Your task to perform on an android device: change the clock style Image 0: 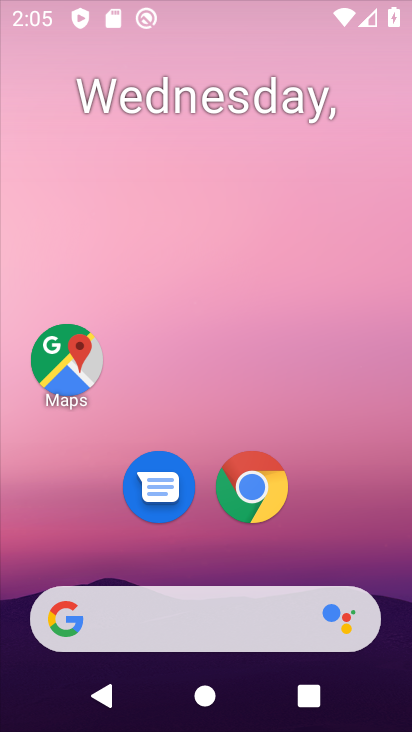
Step 0: drag from (300, 616) to (163, 210)
Your task to perform on an android device: change the clock style Image 1: 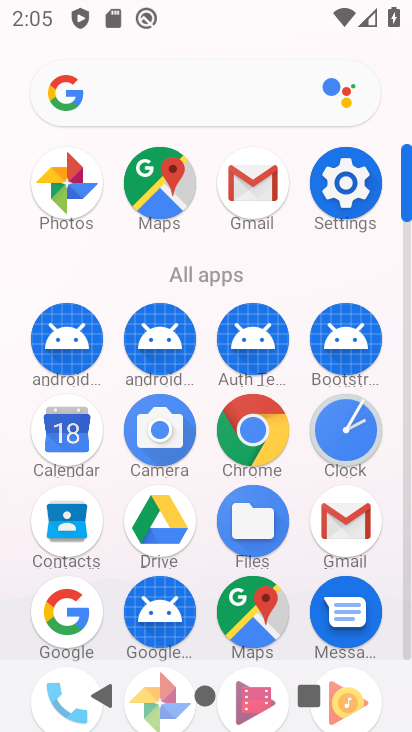
Step 1: click (344, 439)
Your task to perform on an android device: change the clock style Image 2: 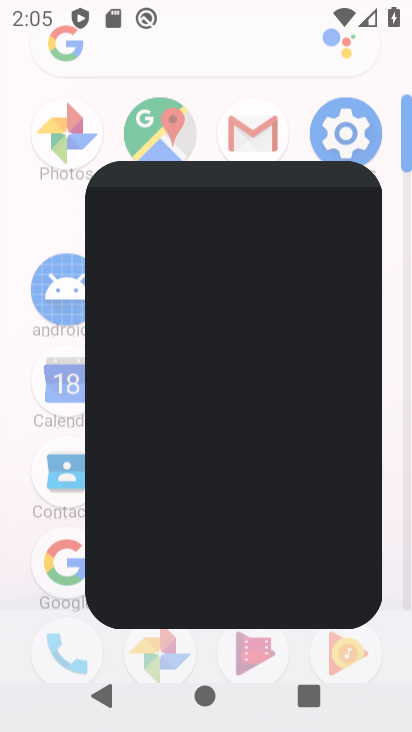
Step 2: click (345, 438)
Your task to perform on an android device: change the clock style Image 3: 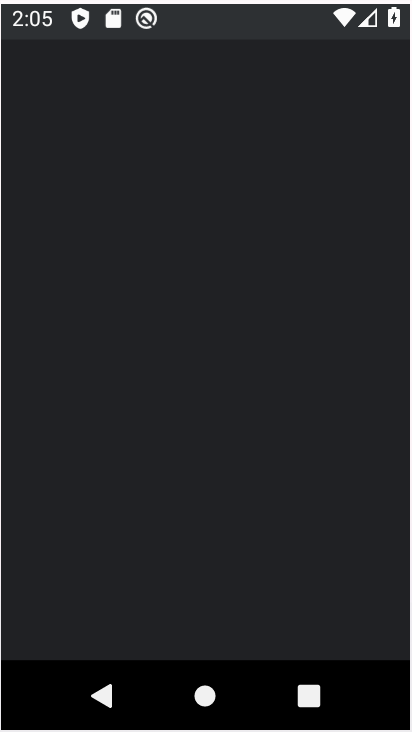
Step 3: click (345, 438)
Your task to perform on an android device: change the clock style Image 4: 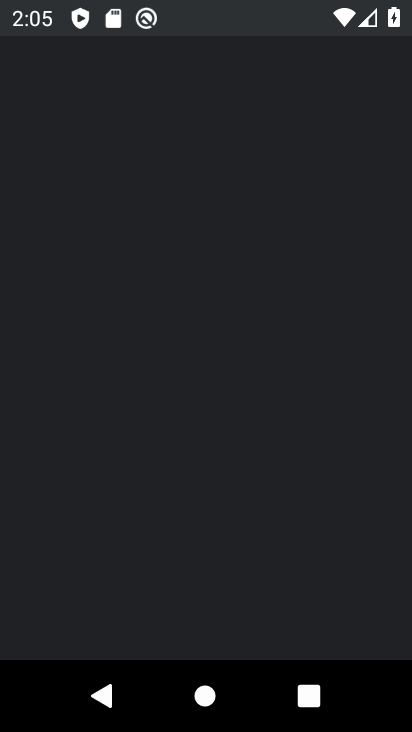
Step 4: click (345, 438)
Your task to perform on an android device: change the clock style Image 5: 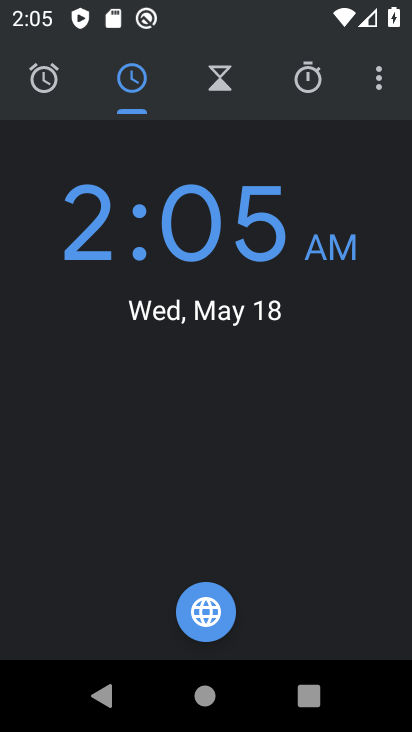
Step 5: click (375, 78)
Your task to perform on an android device: change the clock style Image 6: 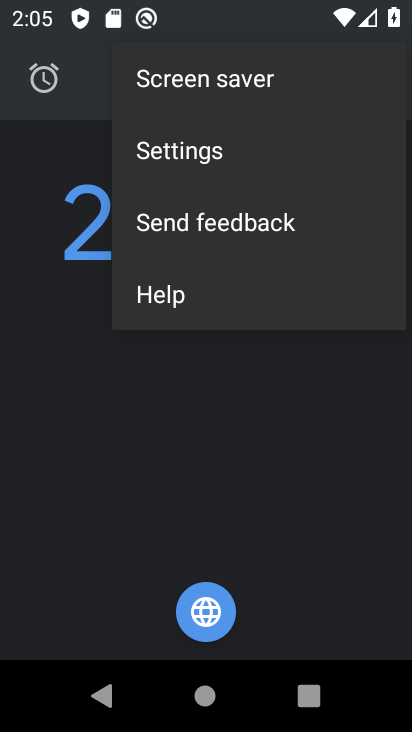
Step 6: click (171, 150)
Your task to perform on an android device: change the clock style Image 7: 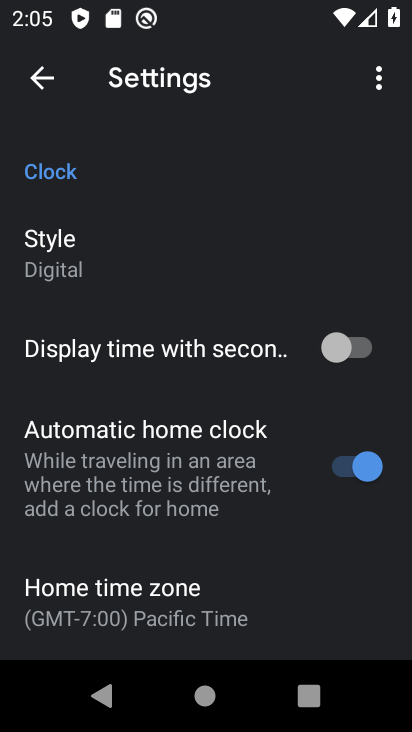
Step 7: click (111, 241)
Your task to perform on an android device: change the clock style Image 8: 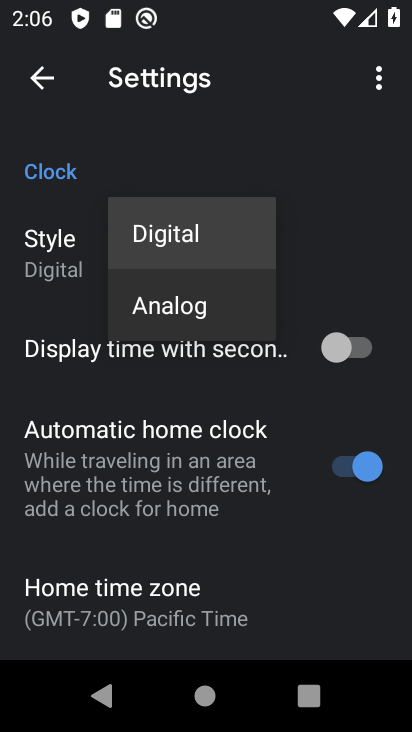
Step 8: click (177, 309)
Your task to perform on an android device: change the clock style Image 9: 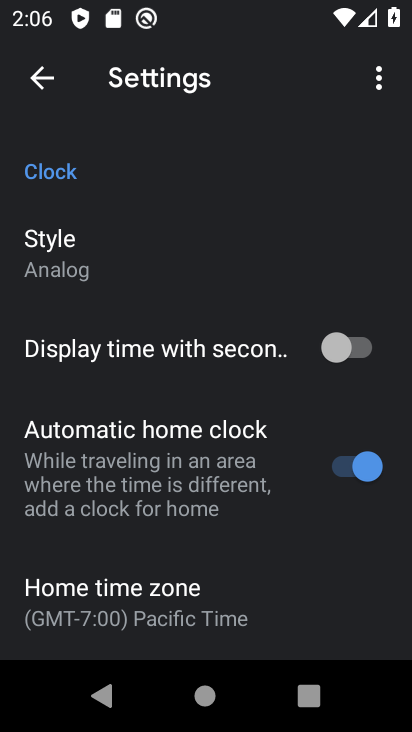
Step 9: task complete